Your task to perform on an android device: change your default location settings in chrome Image 0: 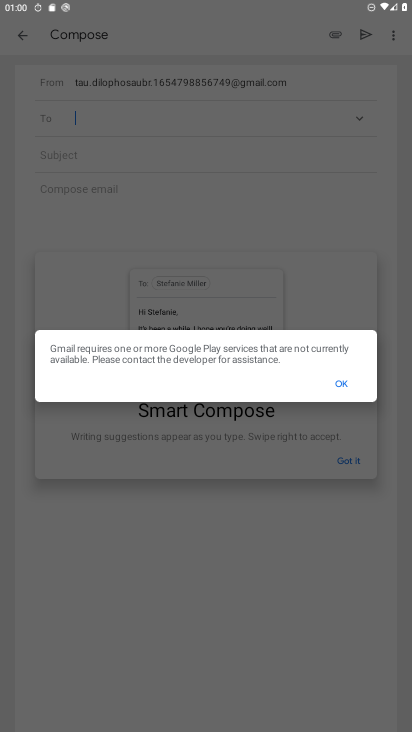
Step 0: press home button
Your task to perform on an android device: change your default location settings in chrome Image 1: 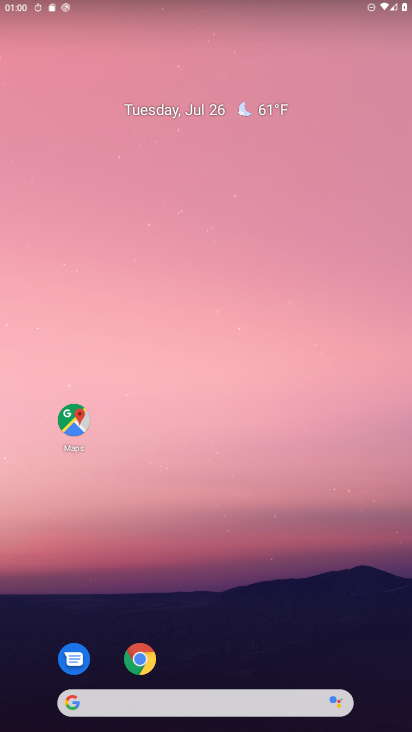
Step 1: click (129, 663)
Your task to perform on an android device: change your default location settings in chrome Image 2: 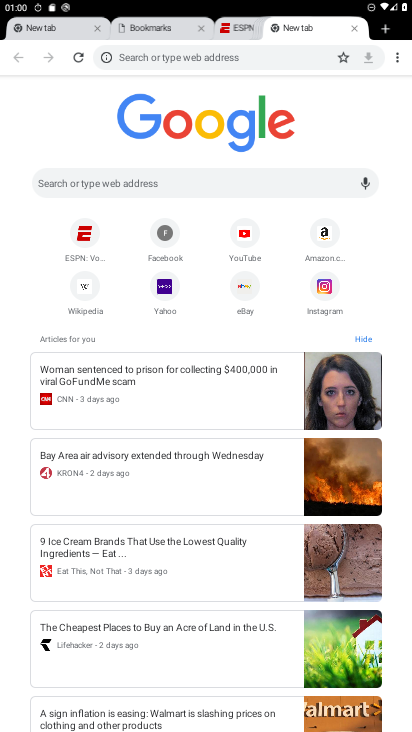
Step 2: click (396, 60)
Your task to perform on an android device: change your default location settings in chrome Image 3: 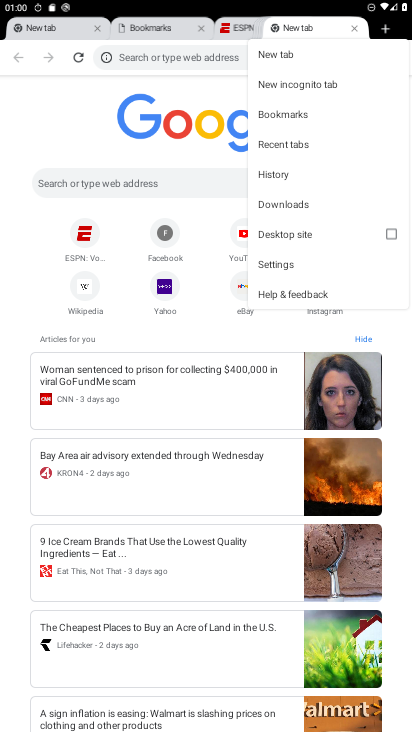
Step 3: click (273, 261)
Your task to perform on an android device: change your default location settings in chrome Image 4: 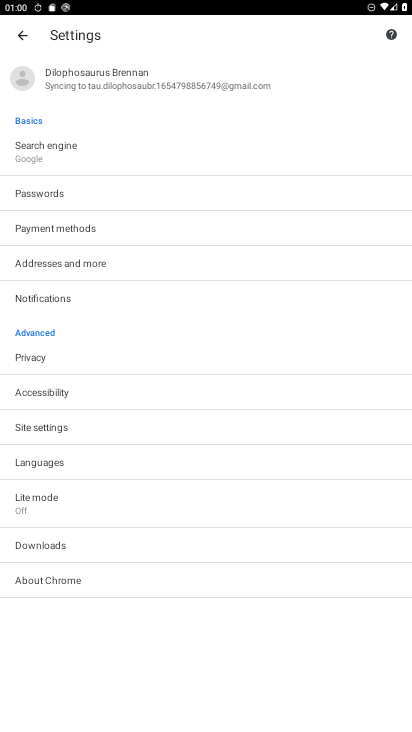
Step 4: click (55, 424)
Your task to perform on an android device: change your default location settings in chrome Image 5: 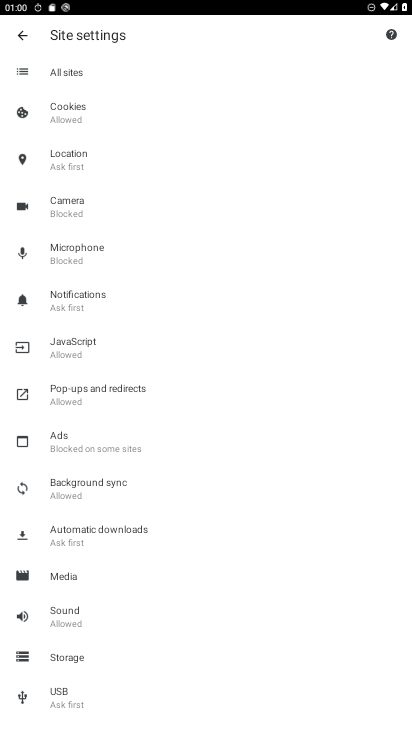
Step 5: click (81, 150)
Your task to perform on an android device: change your default location settings in chrome Image 6: 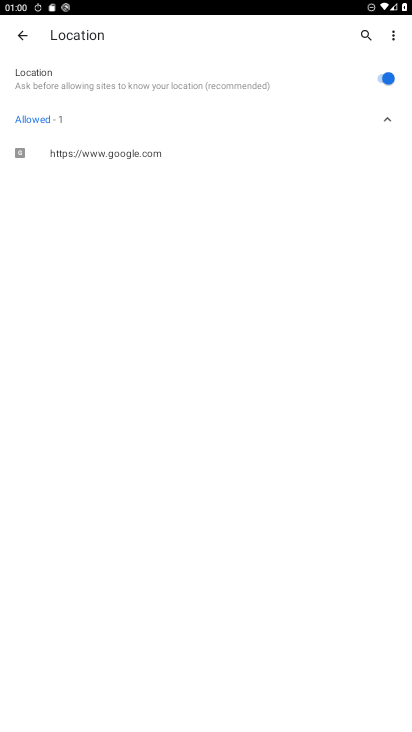
Step 6: task complete